Your task to perform on an android device: open a bookmark in the chrome app Image 0: 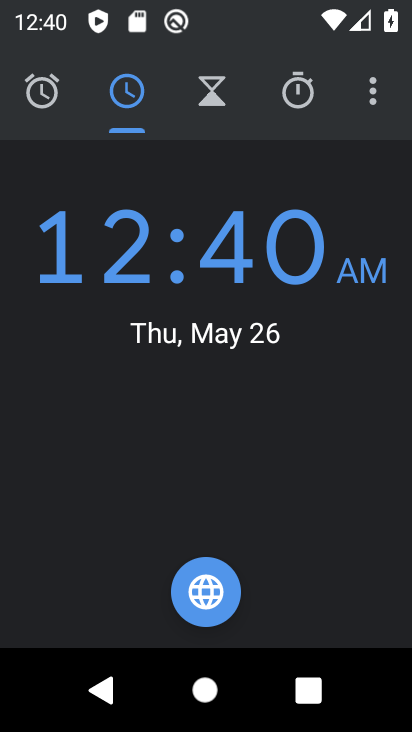
Step 0: press back button
Your task to perform on an android device: open a bookmark in the chrome app Image 1: 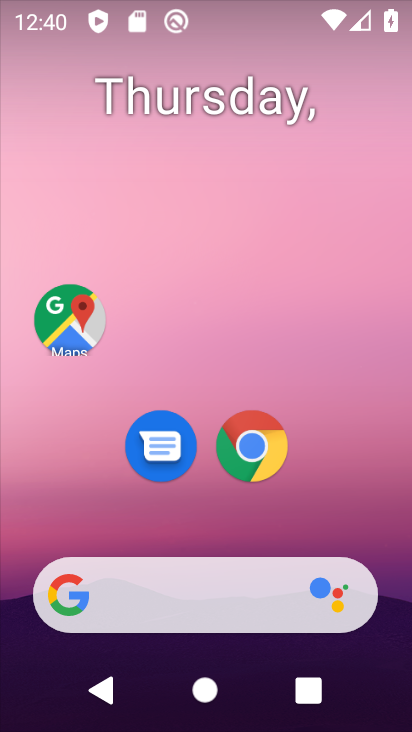
Step 1: drag from (333, 469) to (324, 32)
Your task to perform on an android device: open a bookmark in the chrome app Image 2: 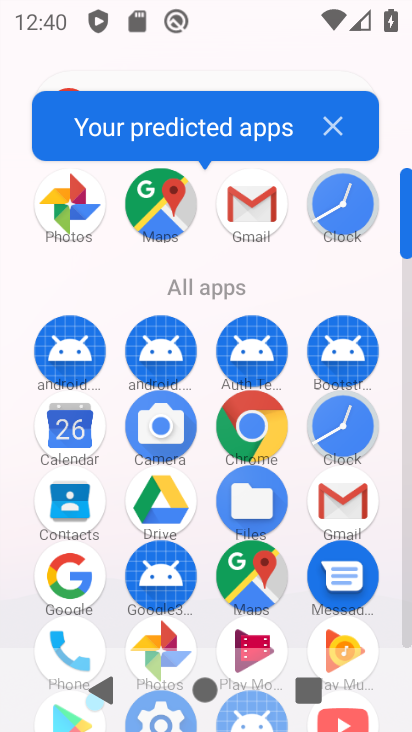
Step 2: drag from (13, 594) to (22, 233)
Your task to perform on an android device: open a bookmark in the chrome app Image 3: 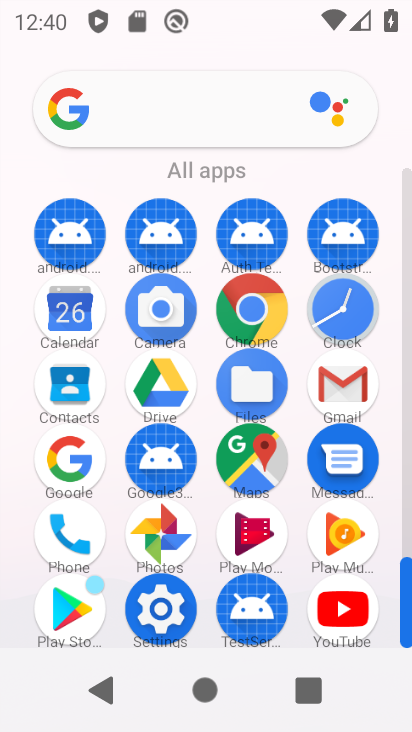
Step 3: click (247, 302)
Your task to perform on an android device: open a bookmark in the chrome app Image 4: 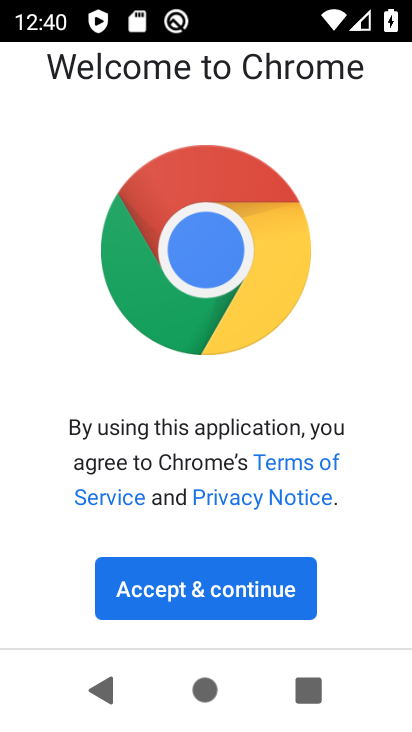
Step 4: click (201, 577)
Your task to perform on an android device: open a bookmark in the chrome app Image 5: 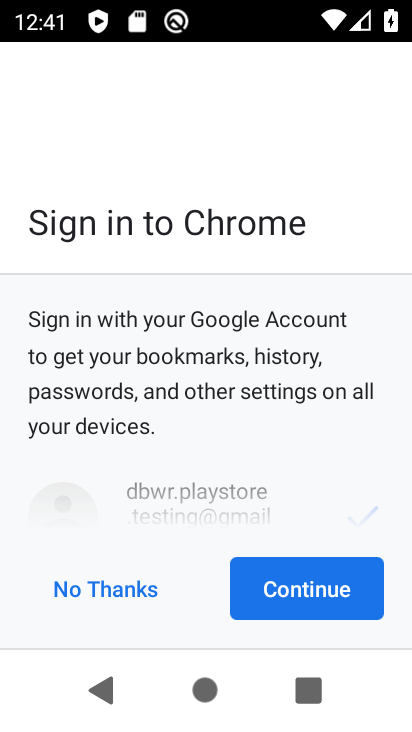
Step 5: click (287, 597)
Your task to perform on an android device: open a bookmark in the chrome app Image 6: 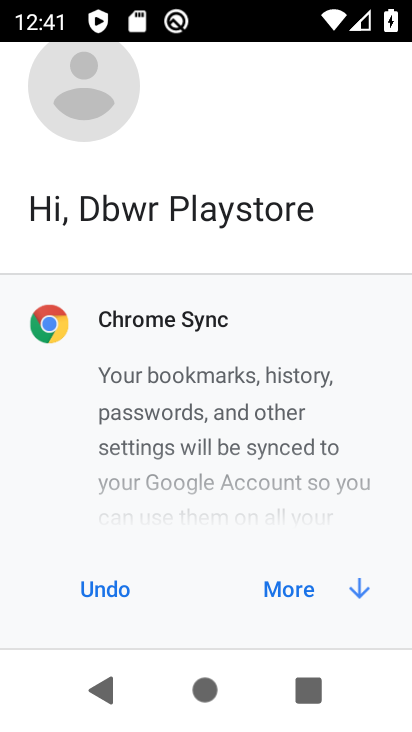
Step 6: click (288, 590)
Your task to perform on an android device: open a bookmark in the chrome app Image 7: 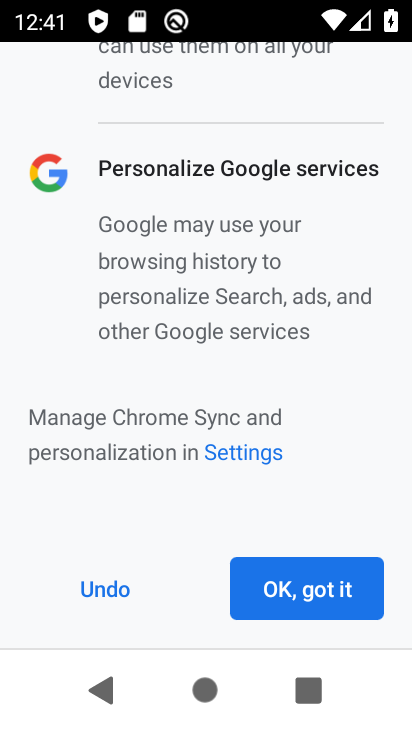
Step 7: click (293, 585)
Your task to perform on an android device: open a bookmark in the chrome app Image 8: 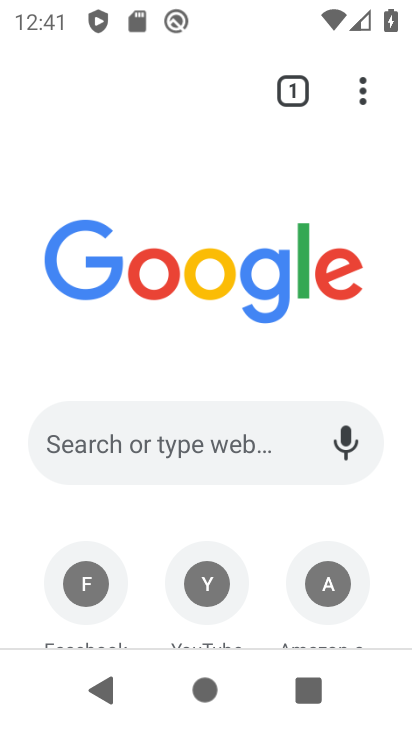
Step 8: task complete